Your task to perform on an android device: turn on airplane mode Image 0: 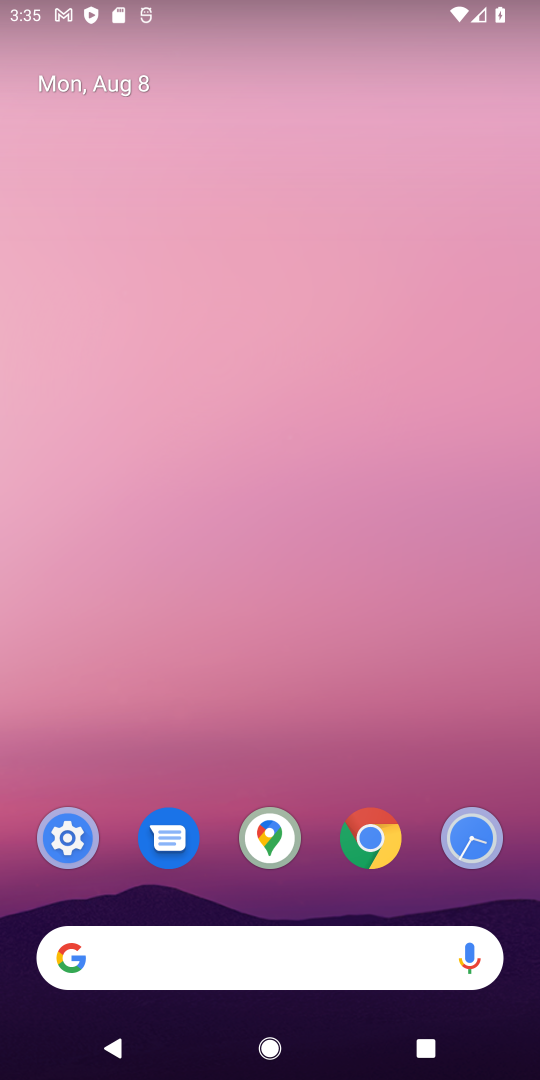
Step 0: drag from (345, 972) to (209, 54)
Your task to perform on an android device: turn on airplane mode Image 1: 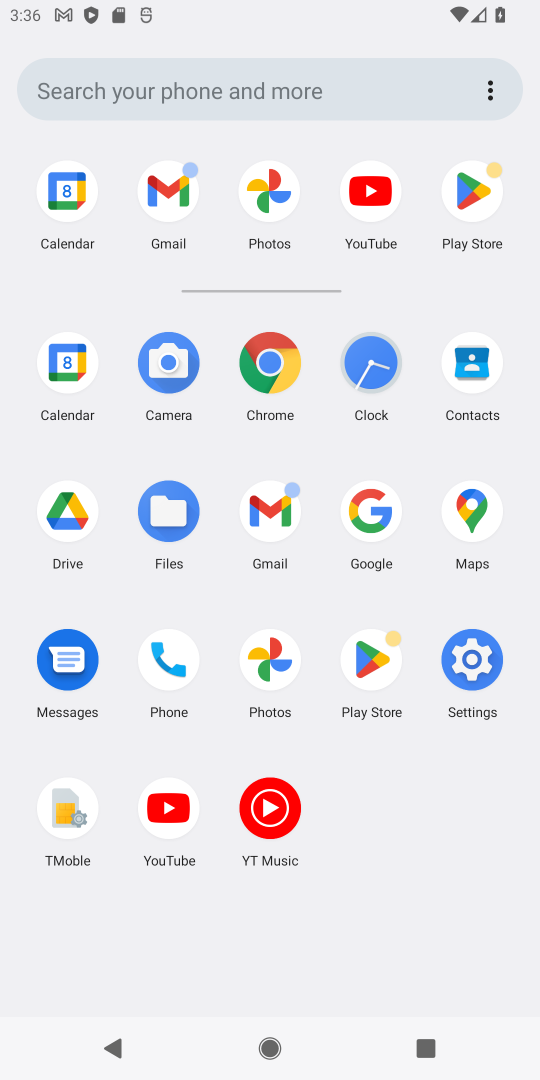
Step 1: click (471, 664)
Your task to perform on an android device: turn on airplane mode Image 2: 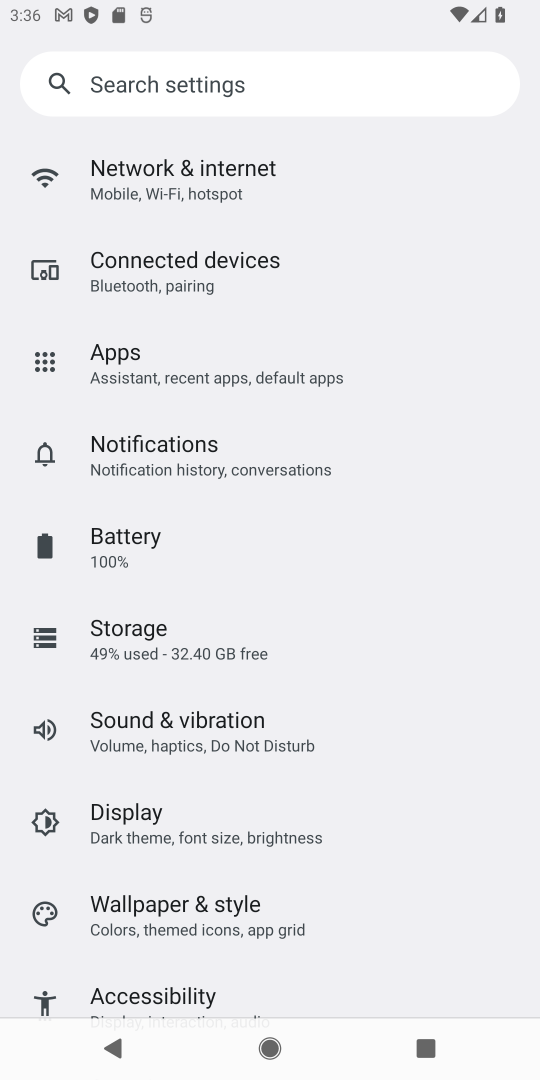
Step 2: click (225, 183)
Your task to perform on an android device: turn on airplane mode Image 3: 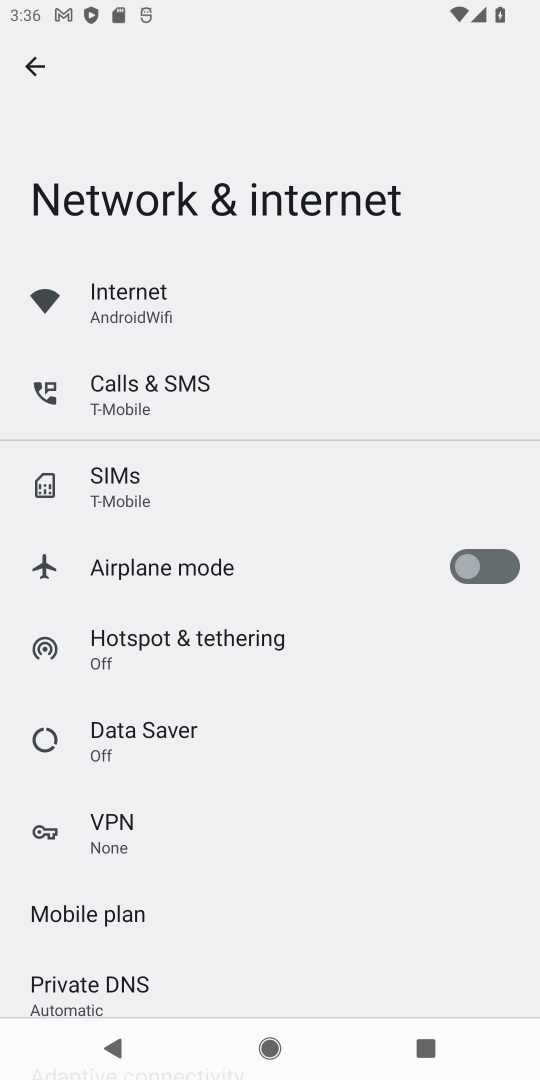
Step 3: click (479, 563)
Your task to perform on an android device: turn on airplane mode Image 4: 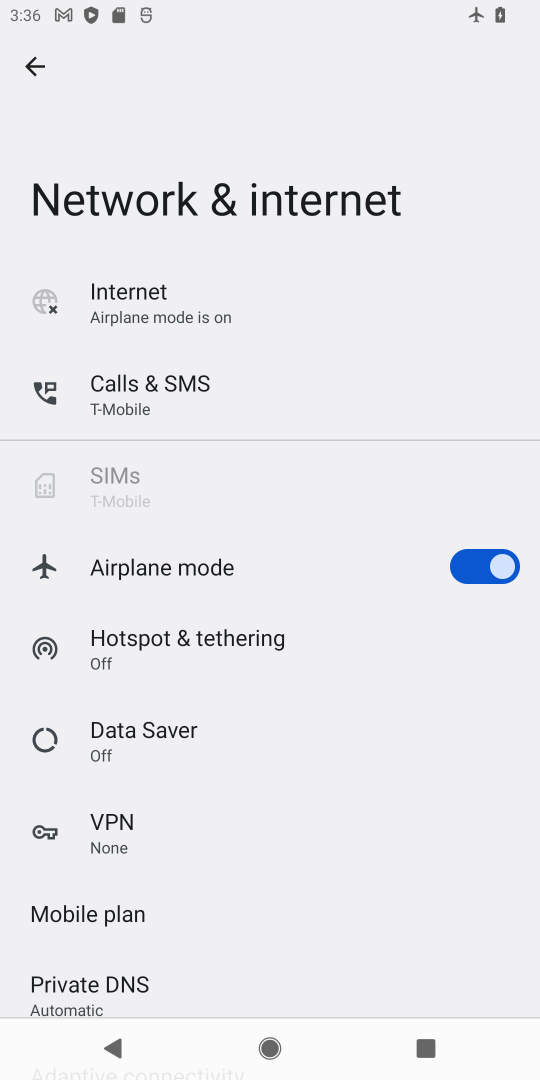
Step 4: task complete